Your task to perform on an android device: Go to eBay Image 0: 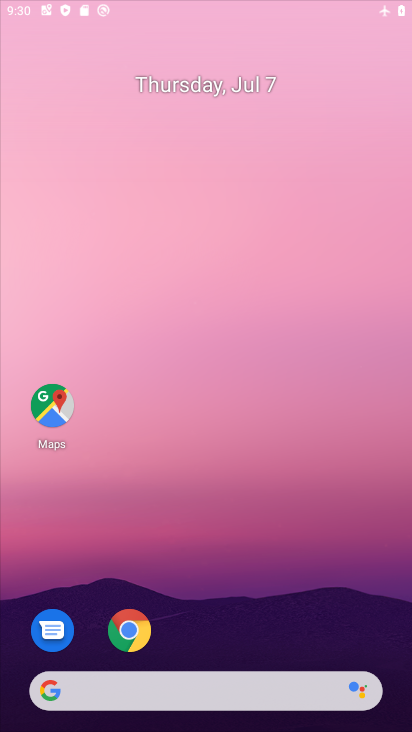
Step 0: click (213, 210)
Your task to perform on an android device: Go to eBay Image 1: 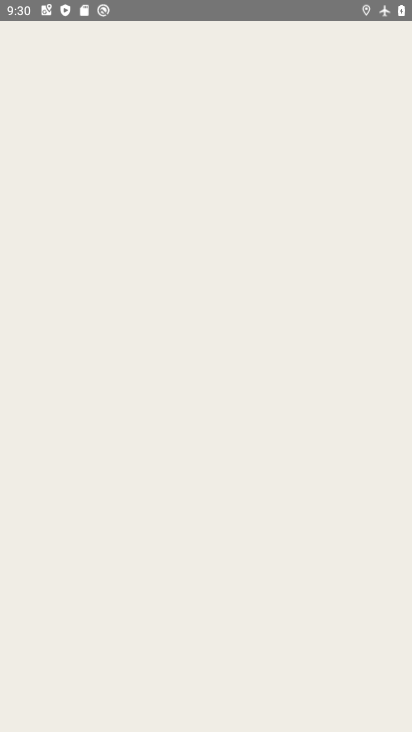
Step 1: press home button
Your task to perform on an android device: Go to eBay Image 2: 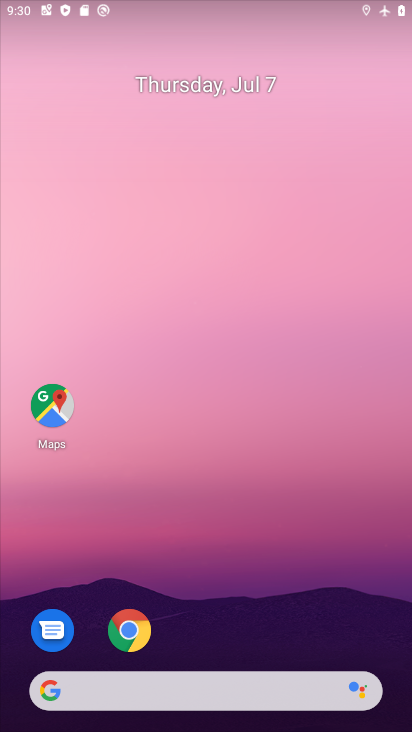
Step 2: click (205, 620)
Your task to perform on an android device: Go to eBay Image 3: 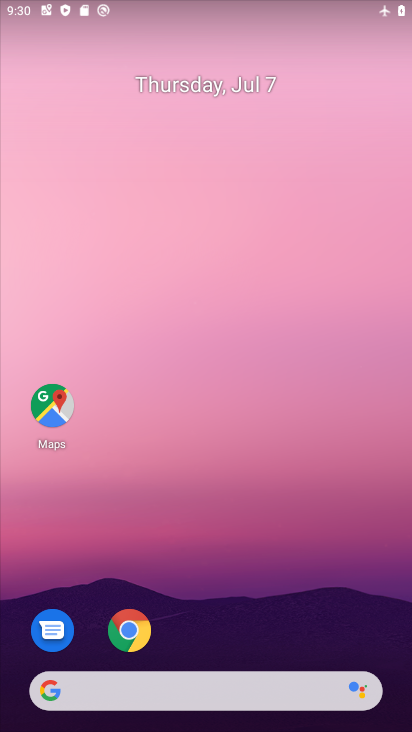
Step 3: click (135, 628)
Your task to perform on an android device: Go to eBay Image 4: 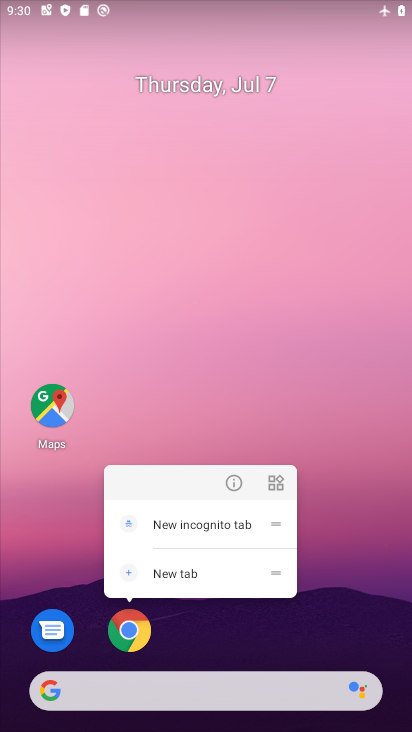
Step 4: click (135, 628)
Your task to perform on an android device: Go to eBay Image 5: 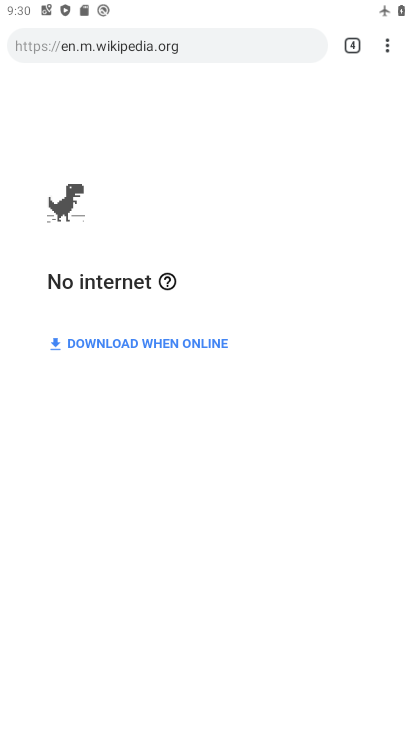
Step 5: click (359, 46)
Your task to perform on an android device: Go to eBay Image 6: 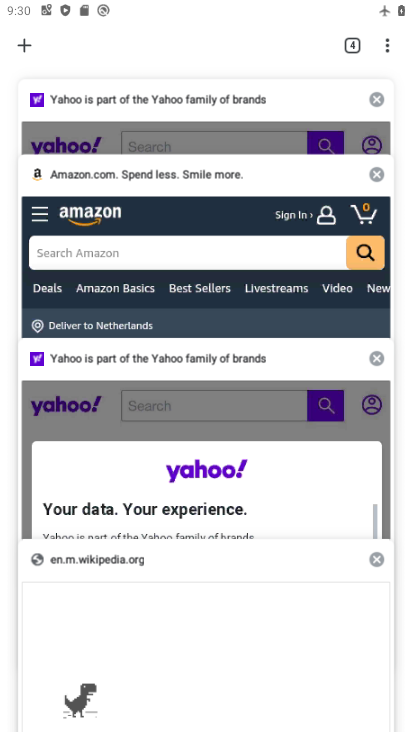
Step 6: click (25, 53)
Your task to perform on an android device: Go to eBay Image 7: 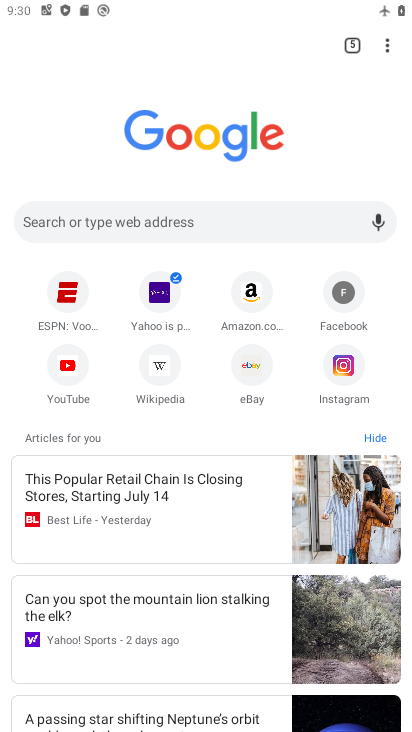
Step 7: click (249, 357)
Your task to perform on an android device: Go to eBay Image 8: 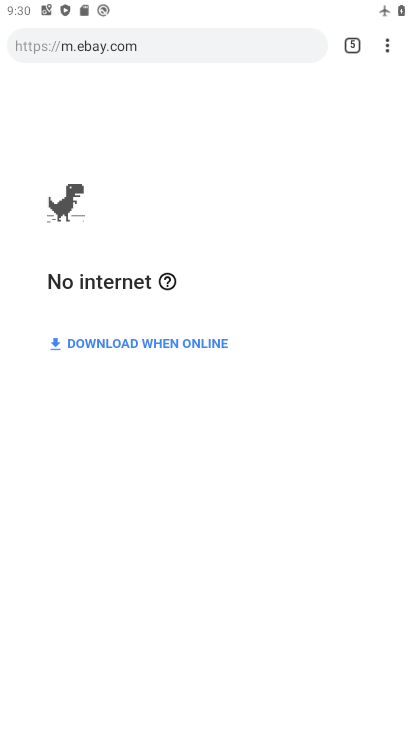
Step 8: task complete